Your task to perform on an android device: Show me popular videos on Youtube Image 0: 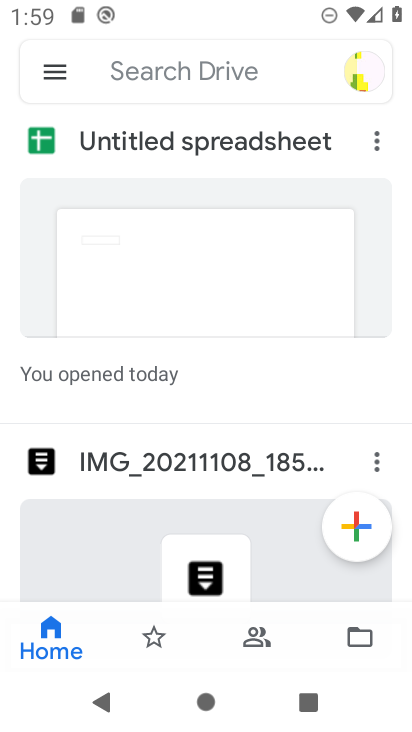
Step 0: press back button
Your task to perform on an android device: Show me popular videos on Youtube Image 1: 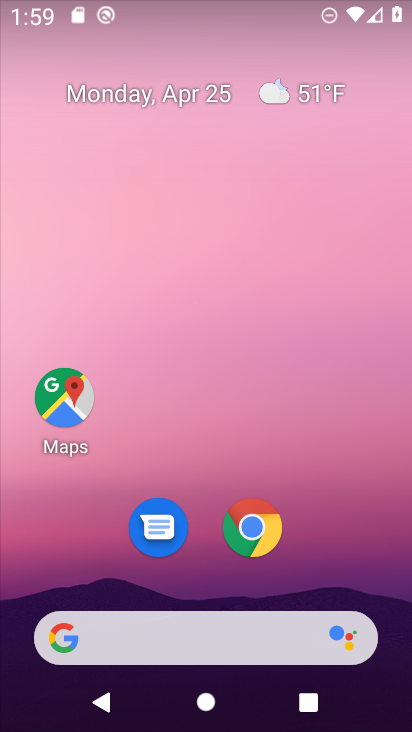
Step 1: drag from (402, 598) to (257, 27)
Your task to perform on an android device: Show me popular videos on Youtube Image 2: 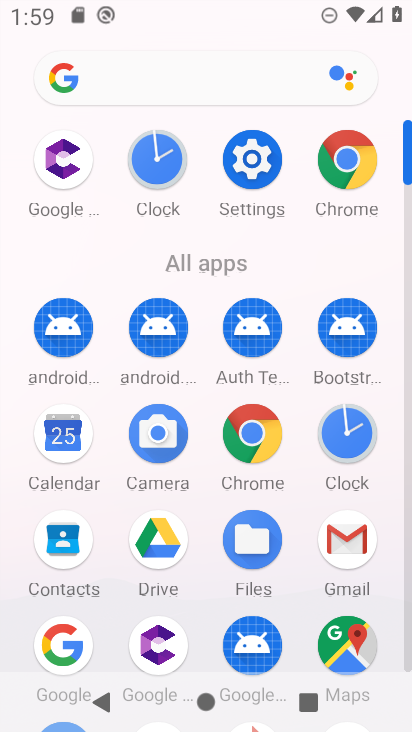
Step 2: drag from (9, 585) to (4, 351)
Your task to perform on an android device: Show me popular videos on Youtube Image 3: 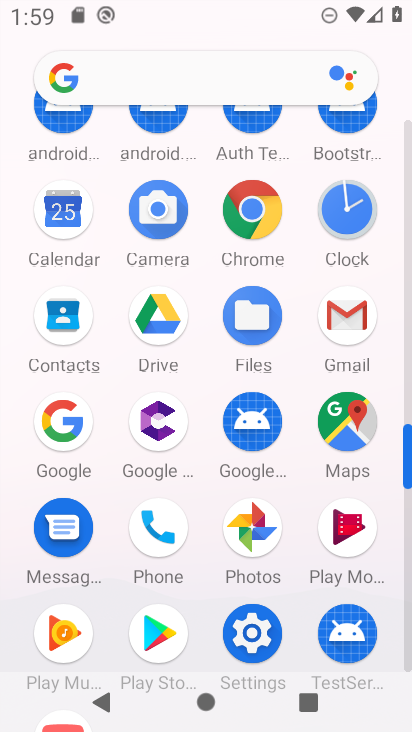
Step 3: drag from (2, 661) to (4, 356)
Your task to perform on an android device: Show me popular videos on Youtube Image 4: 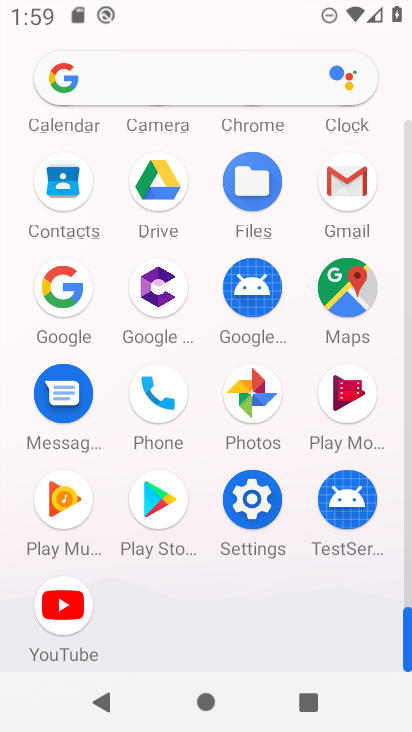
Step 4: click (55, 589)
Your task to perform on an android device: Show me popular videos on Youtube Image 5: 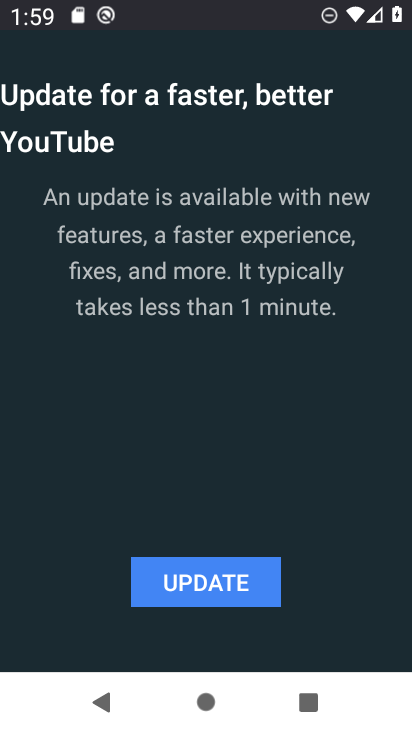
Step 5: click (204, 574)
Your task to perform on an android device: Show me popular videos on Youtube Image 6: 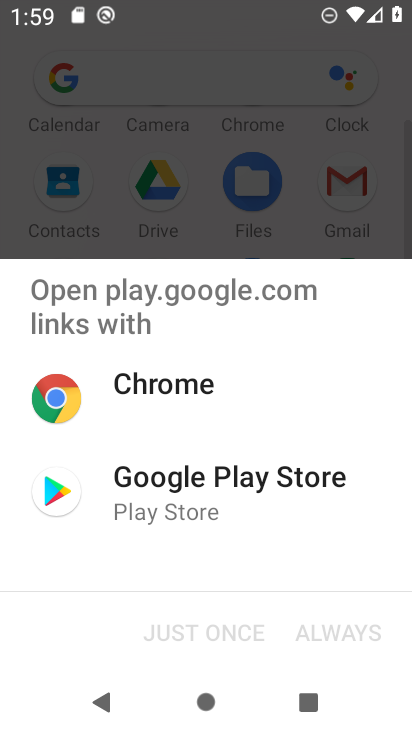
Step 6: click (192, 486)
Your task to perform on an android device: Show me popular videos on Youtube Image 7: 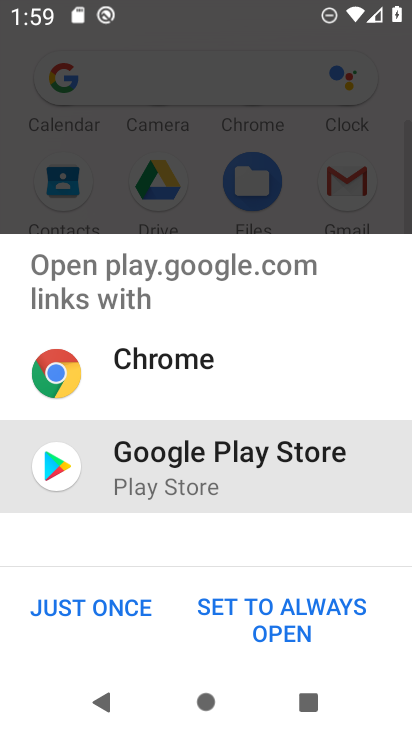
Step 7: click (116, 614)
Your task to perform on an android device: Show me popular videos on Youtube Image 8: 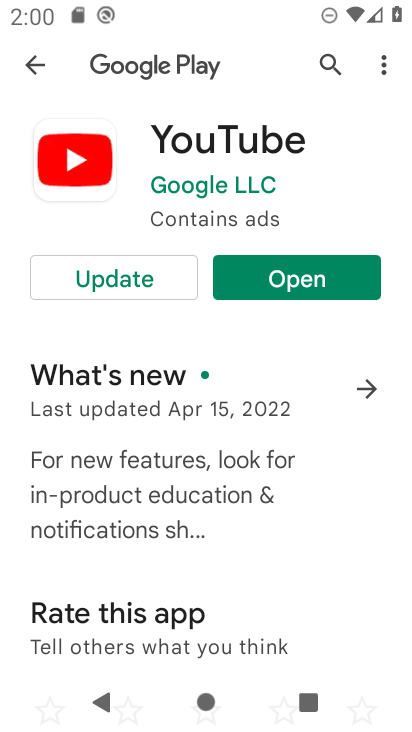
Step 8: click (113, 279)
Your task to perform on an android device: Show me popular videos on Youtube Image 9: 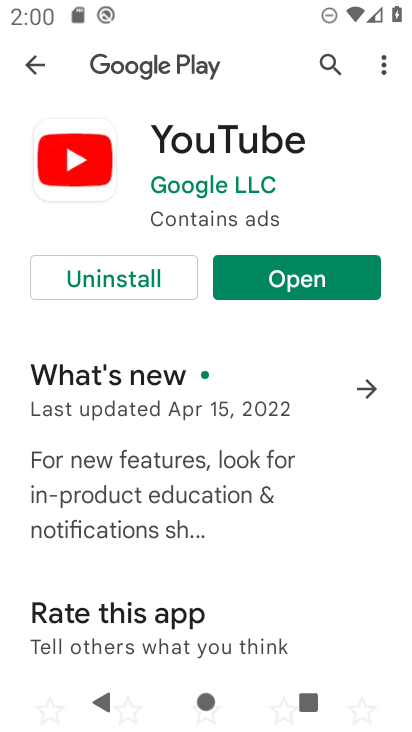
Step 9: click (268, 291)
Your task to perform on an android device: Show me popular videos on Youtube Image 10: 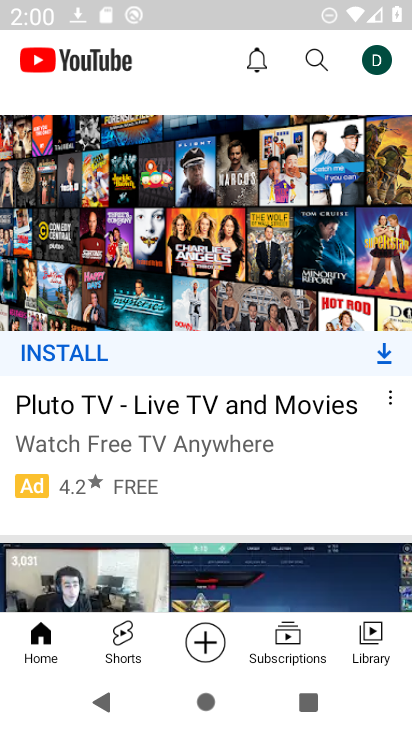
Step 10: click (57, 57)
Your task to perform on an android device: Show me popular videos on Youtube Image 11: 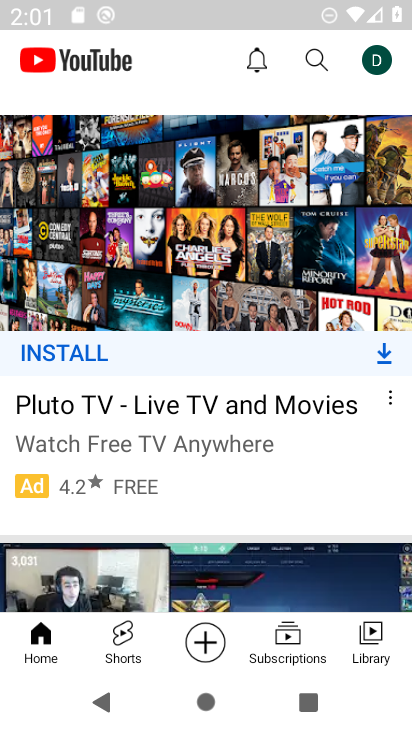
Step 11: click (33, 60)
Your task to perform on an android device: Show me popular videos on Youtube Image 12: 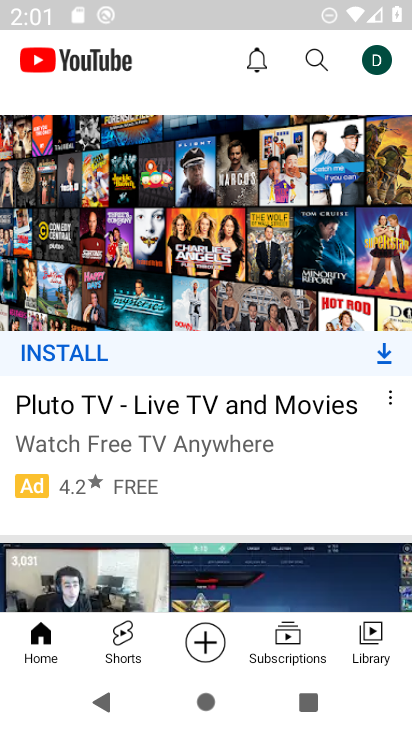
Step 12: click (31, 644)
Your task to perform on an android device: Show me popular videos on Youtube Image 13: 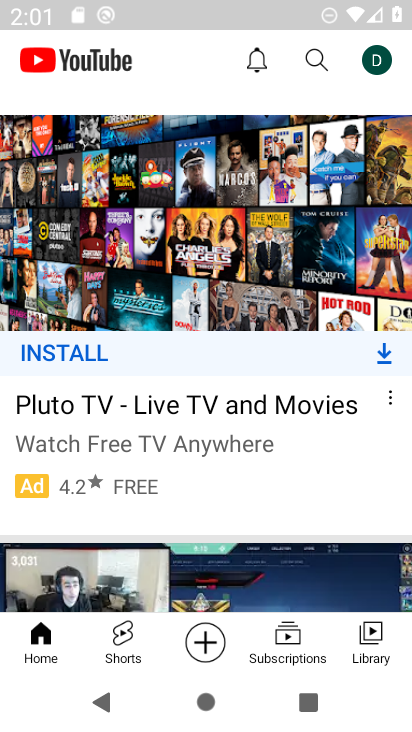
Step 13: click (355, 647)
Your task to perform on an android device: Show me popular videos on Youtube Image 14: 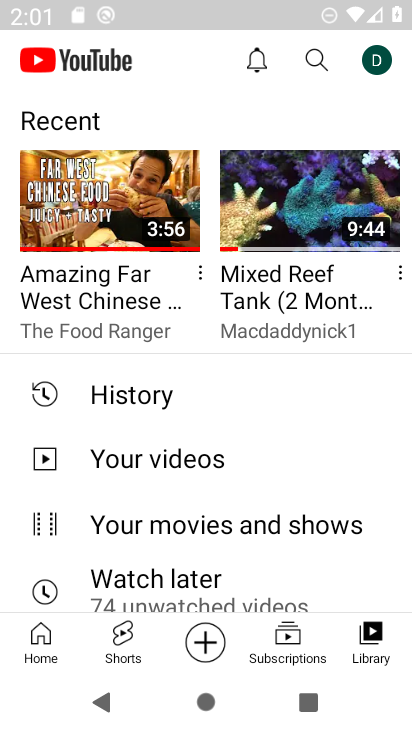
Step 14: click (114, 646)
Your task to perform on an android device: Show me popular videos on Youtube Image 15: 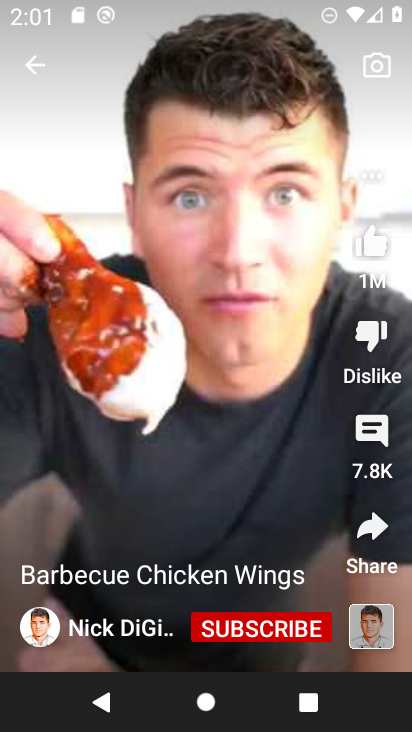
Step 15: click (109, 697)
Your task to perform on an android device: Show me popular videos on Youtube Image 16: 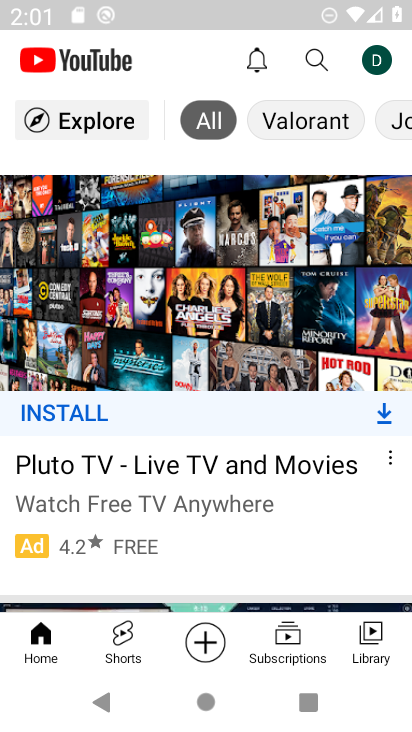
Step 16: click (32, 54)
Your task to perform on an android device: Show me popular videos on Youtube Image 17: 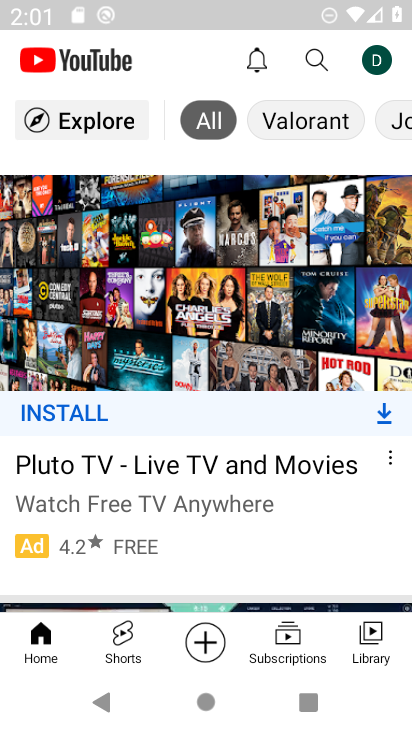
Step 17: click (68, 126)
Your task to perform on an android device: Show me popular videos on Youtube Image 18: 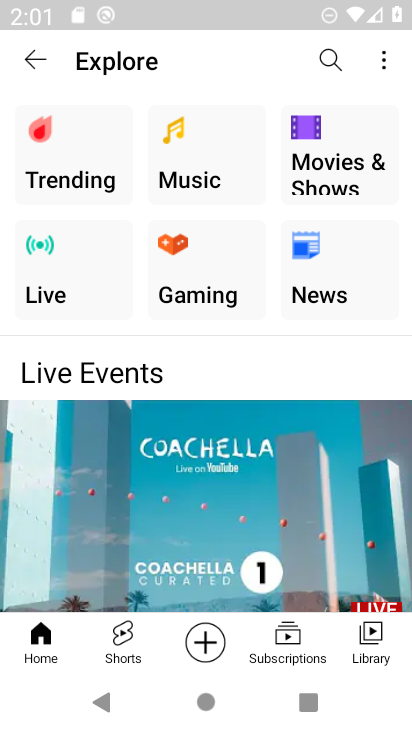
Step 18: click (77, 155)
Your task to perform on an android device: Show me popular videos on Youtube Image 19: 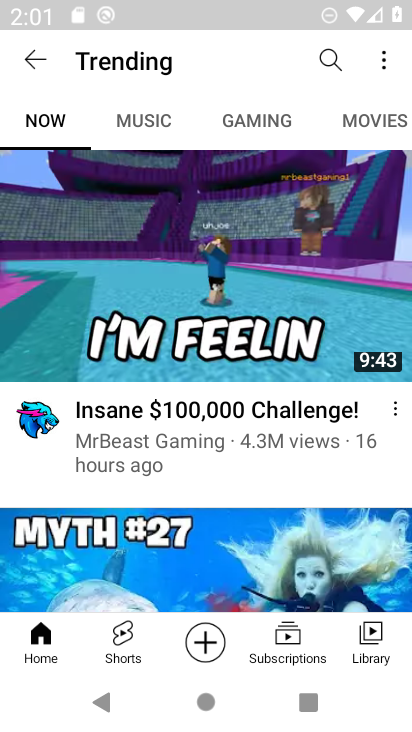
Step 19: task complete